Your task to perform on an android device: check google app version Image 0: 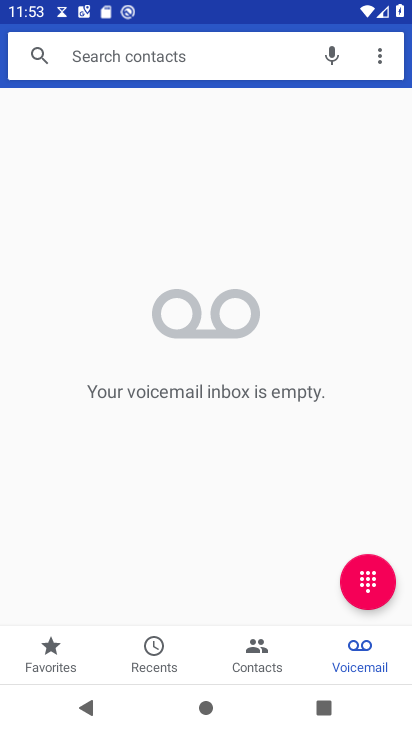
Step 0: click (149, 583)
Your task to perform on an android device: check google app version Image 1: 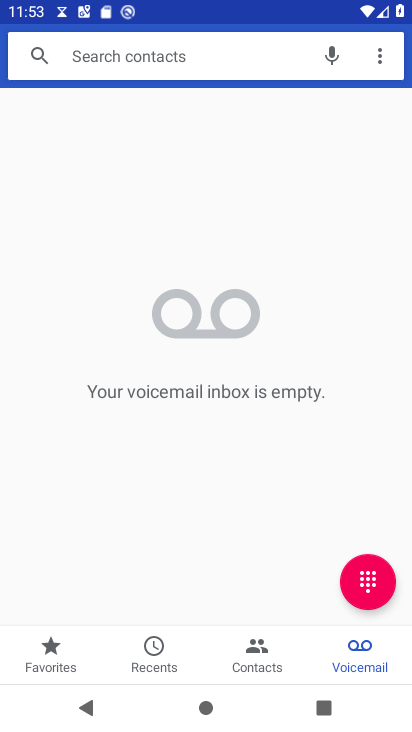
Step 1: press home button
Your task to perform on an android device: check google app version Image 2: 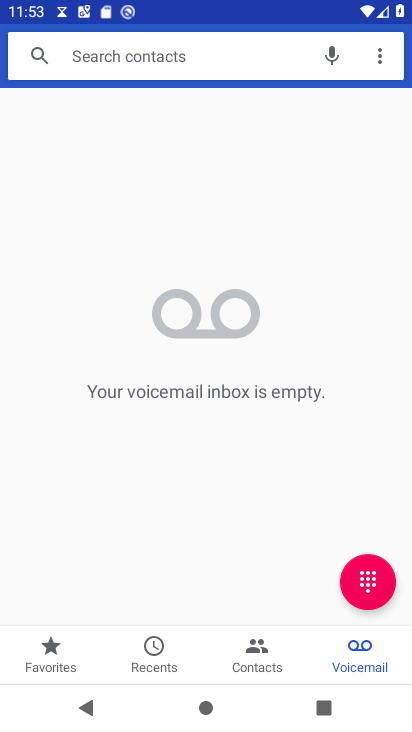
Step 2: press home button
Your task to perform on an android device: check google app version Image 3: 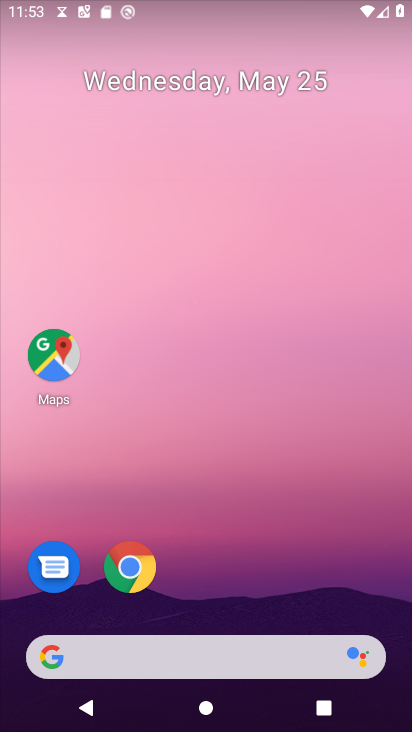
Step 3: press home button
Your task to perform on an android device: check google app version Image 4: 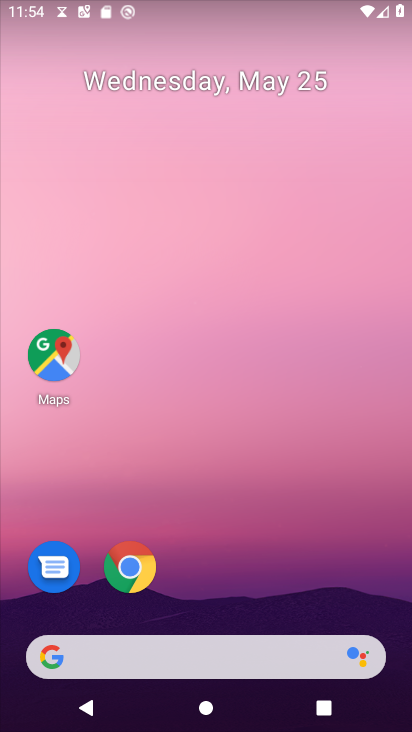
Step 4: click (301, 652)
Your task to perform on an android device: check google app version Image 5: 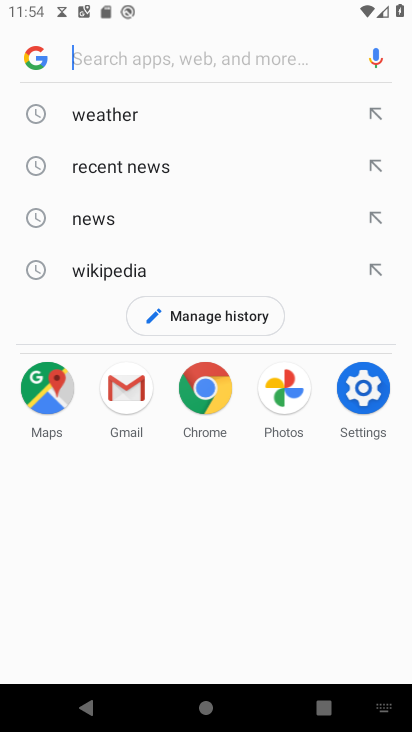
Step 5: click (41, 51)
Your task to perform on an android device: check google app version Image 6: 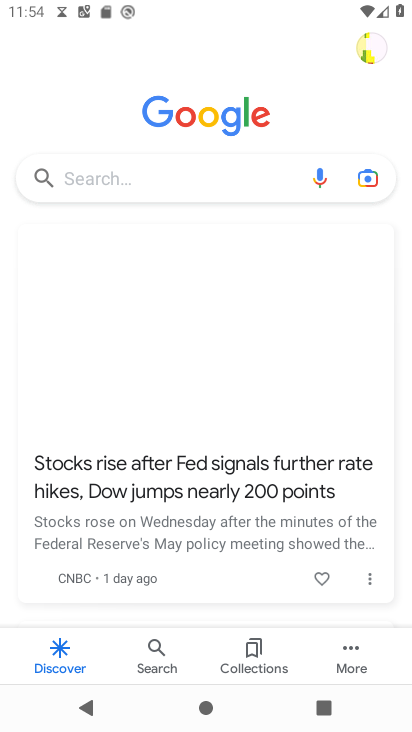
Step 6: click (369, 661)
Your task to perform on an android device: check google app version Image 7: 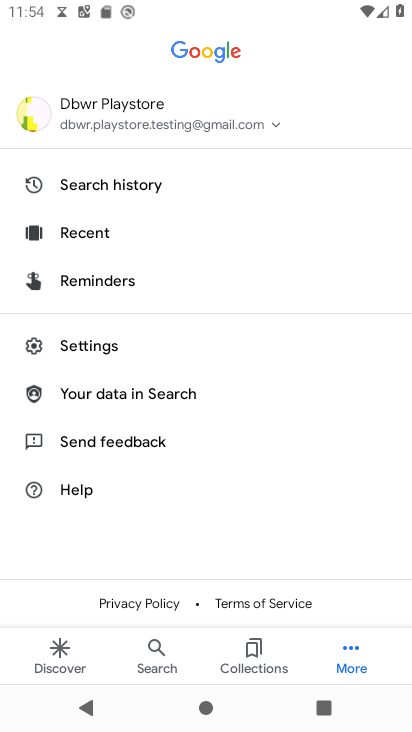
Step 7: click (152, 334)
Your task to perform on an android device: check google app version Image 8: 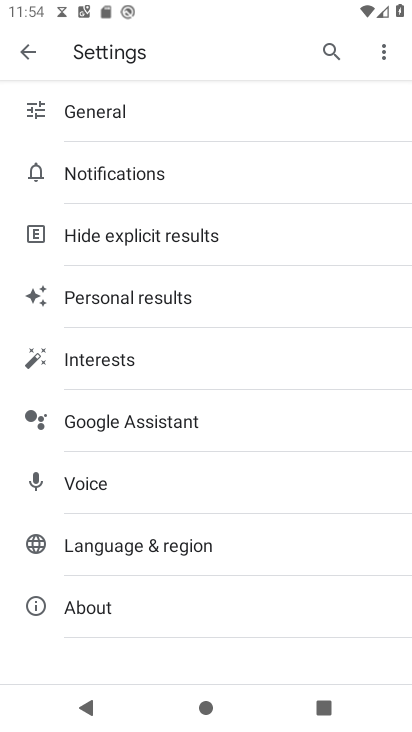
Step 8: click (100, 608)
Your task to perform on an android device: check google app version Image 9: 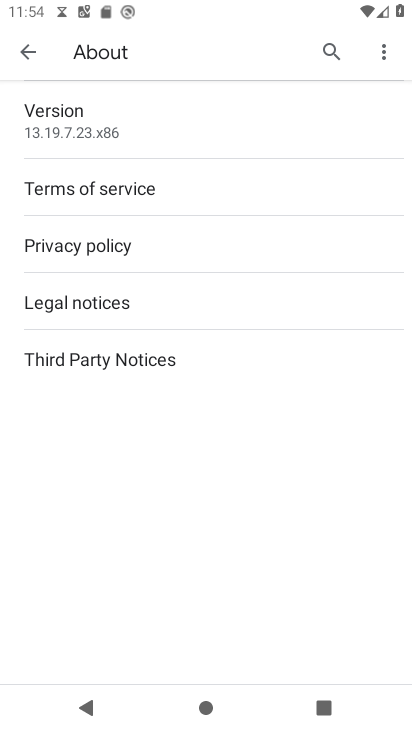
Step 9: task complete